Your task to perform on an android device: turn on bluetooth scan Image 0: 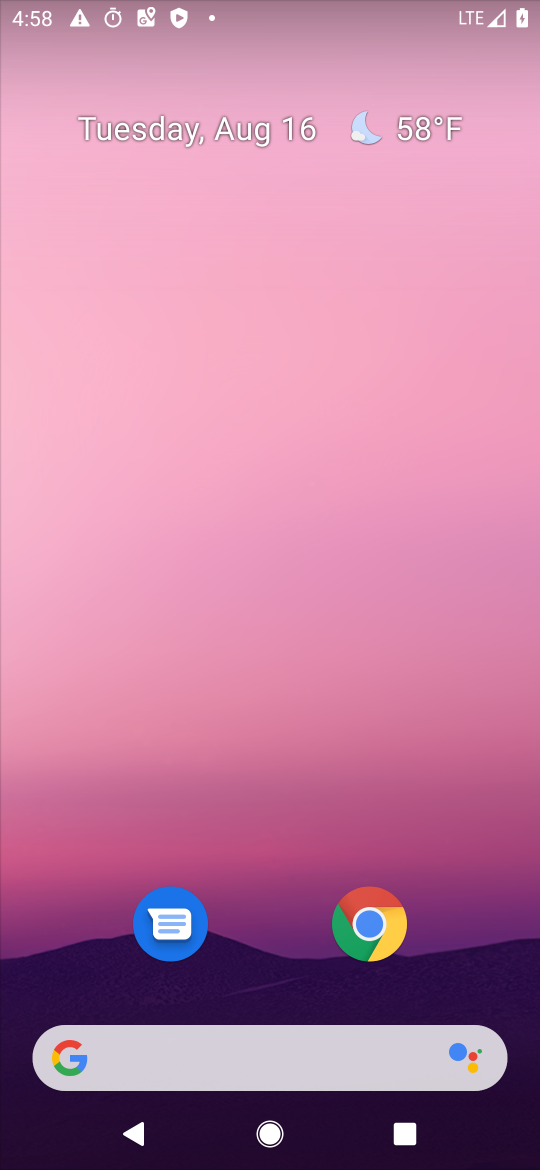
Step 0: drag from (268, 939) to (232, 70)
Your task to perform on an android device: turn on bluetooth scan Image 1: 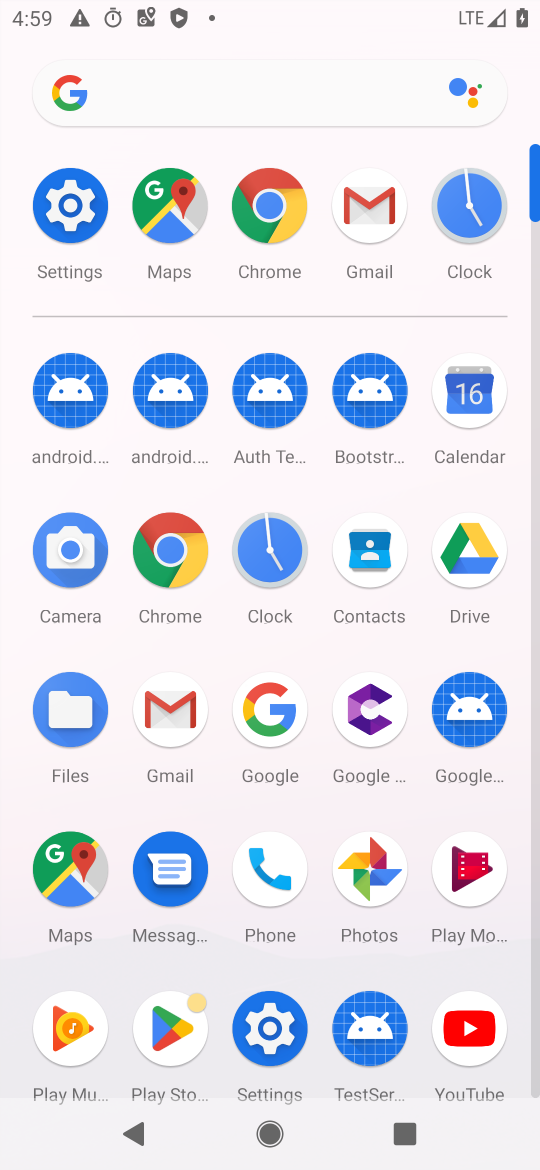
Step 1: click (57, 202)
Your task to perform on an android device: turn on bluetooth scan Image 2: 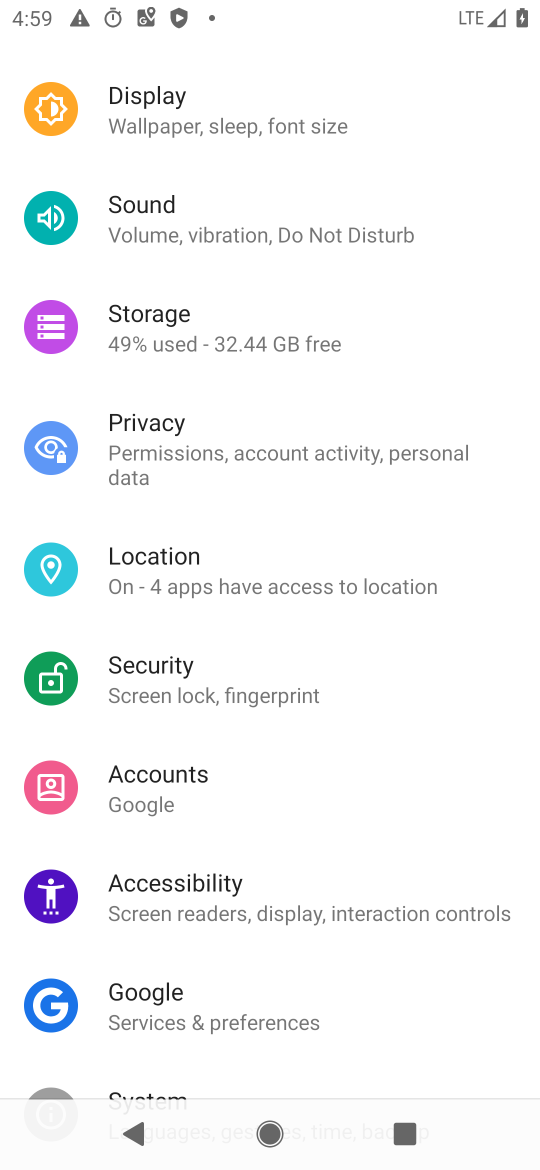
Step 2: click (301, 588)
Your task to perform on an android device: turn on bluetooth scan Image 3: 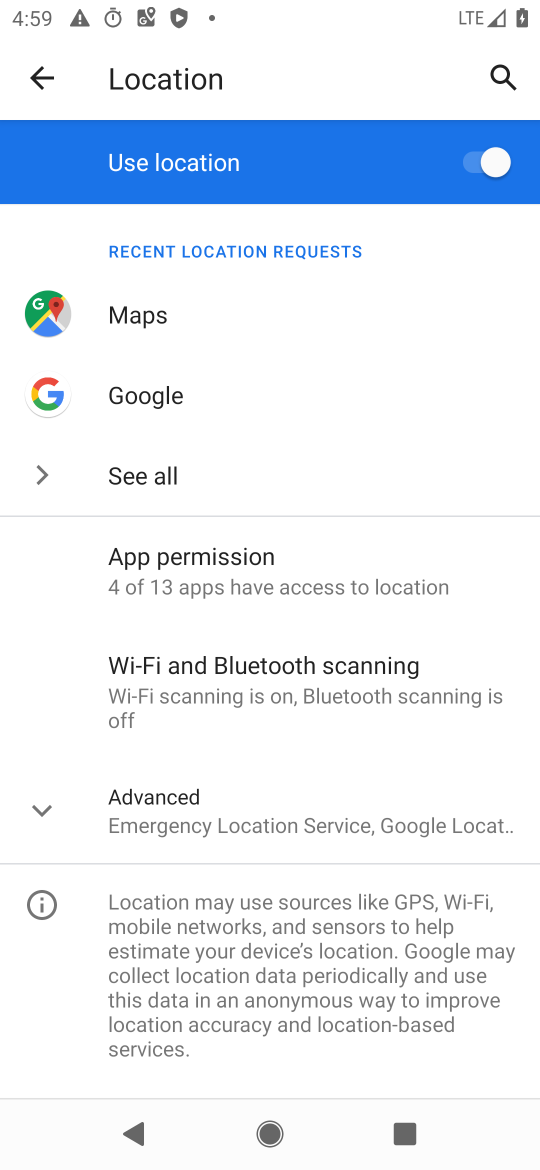
Step 3: click (251, 667)
Your task to perform on an android device: turn on bluetooth scan Image 4: 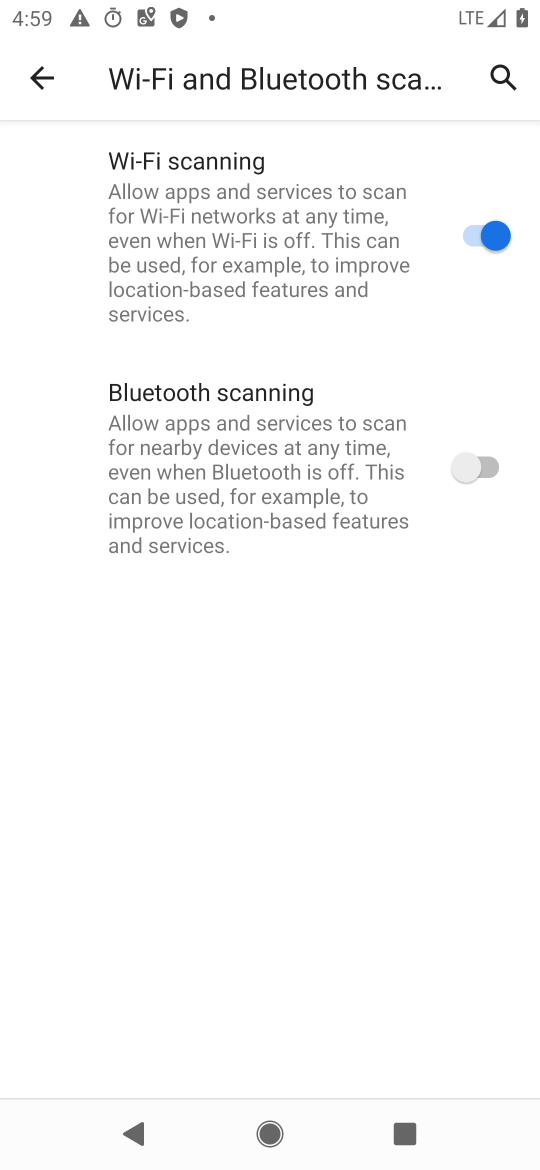
Step 4: click (467, 472)
Your task to perform on an android device: turn on bluetooth scan Image 5: 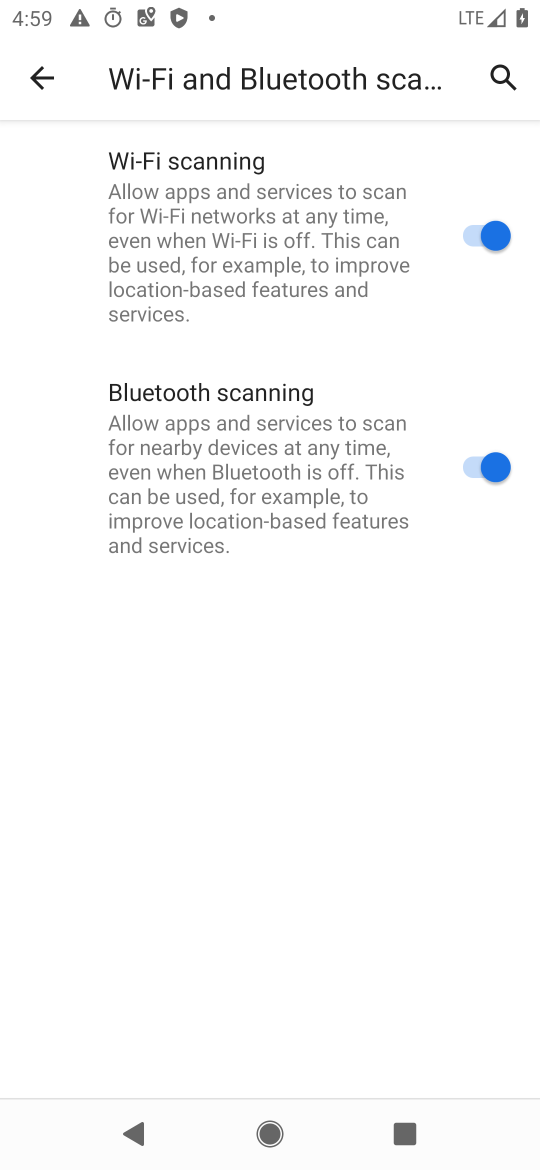
Step 5: task complete